Your task to perform on an android device: Open the web browser Image 0: 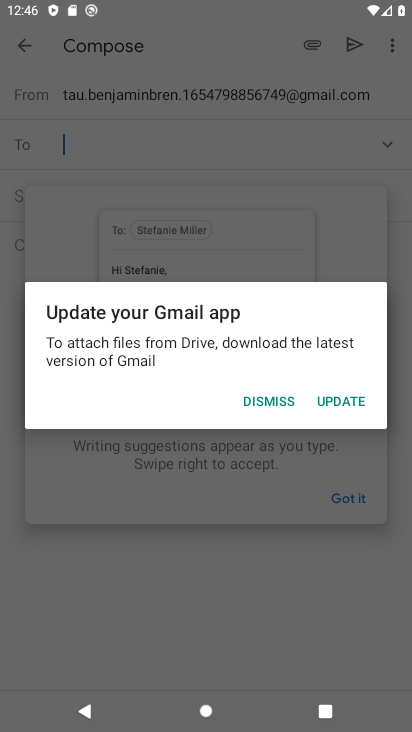
Step 0: press home button
Your task to perform on an android device: Open the web browser Image 1: 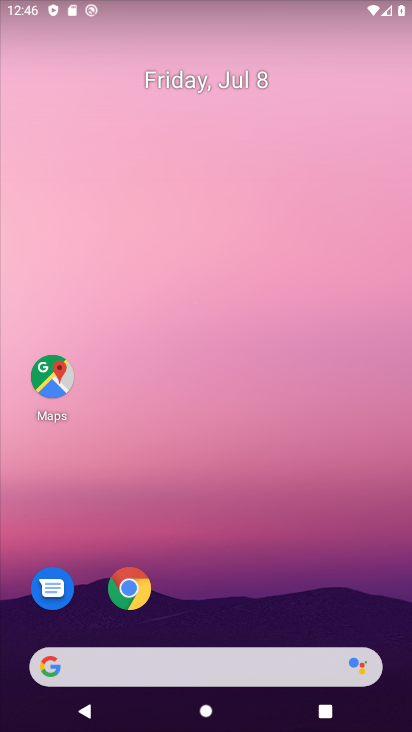
Step 1: click (148, 588)
Your task to perform on an android device: Open the web browser Image 2: 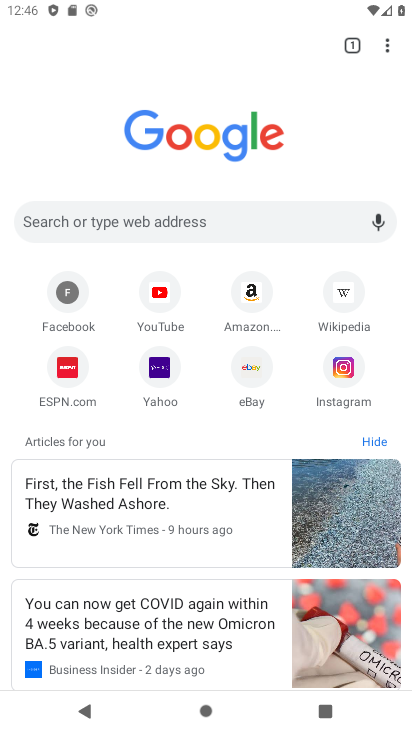
Step 2: task complete